Your task to perform on an android device: allow notifications from all sites in the chrome app Image 0: 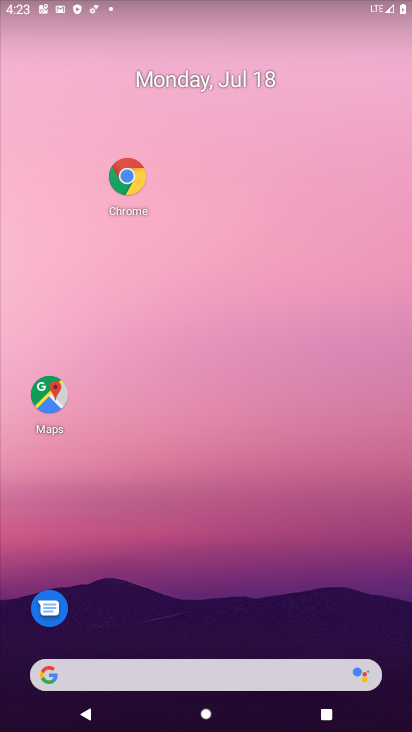
Step 0: drag from (259, 660) to (371, 232)
Your task to perform on an android device: allow notifications from all sites in the chrome app Image 1: 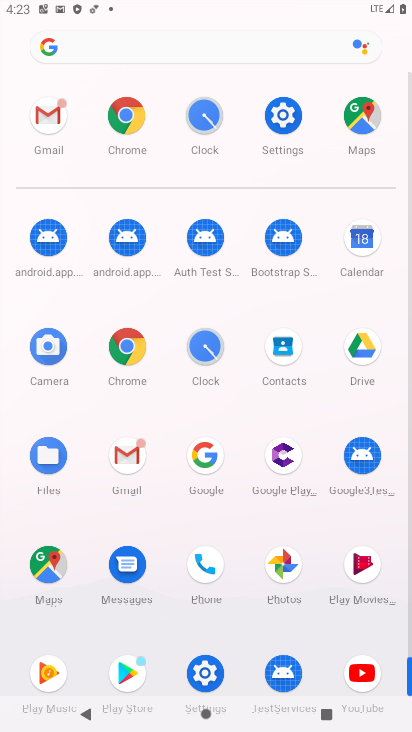
Step 1: click (126, 133)
Your task to perform on an android device: allow notifications from all sites in the chrome app Image 2: 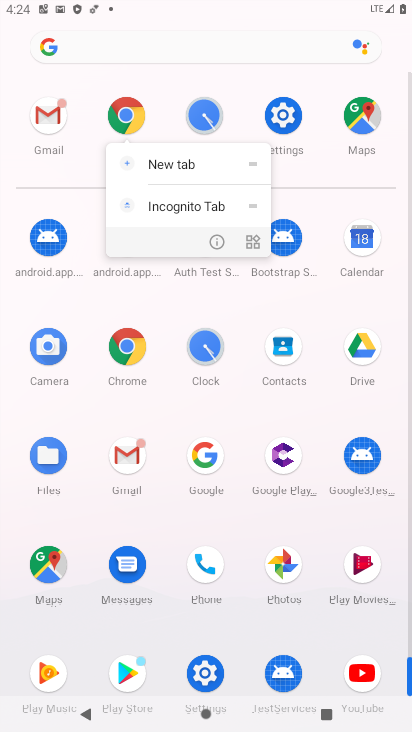
Step 2: click (122, 111)
Your task to perform on an android device: allow notifications from all sites in the chrome app Image 3: 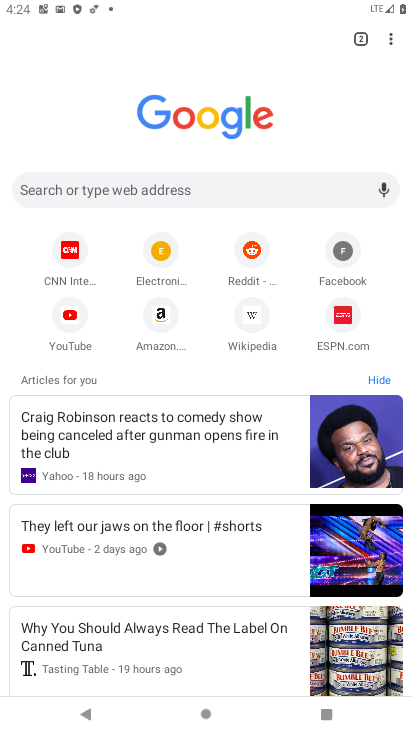
Step 3: click (386, 46)
Your task to perform on an android device: allow notifications from all sites in the chrome app Image 4: 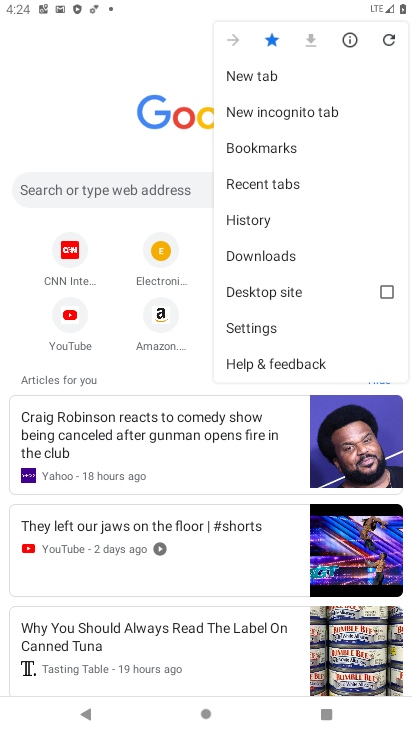
Step 4: click (252, 327)
Your task to perform on an android device: allow notifications from all sites in the chrome app Image 5: 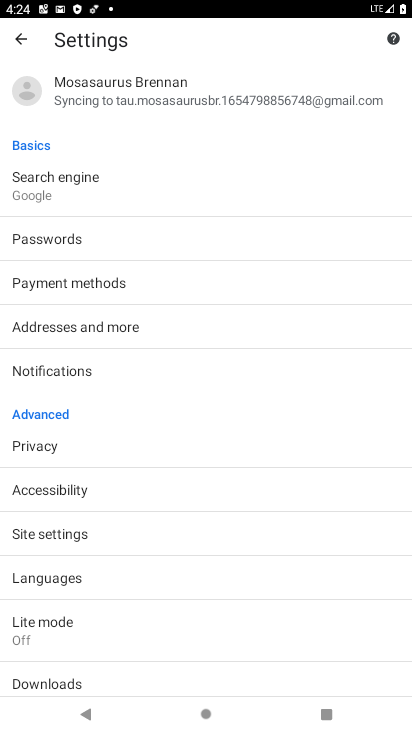
Step 5: click (56, 365)
Your task to perform on an android device: allow notifications from all sites in the chrome app Image 6: 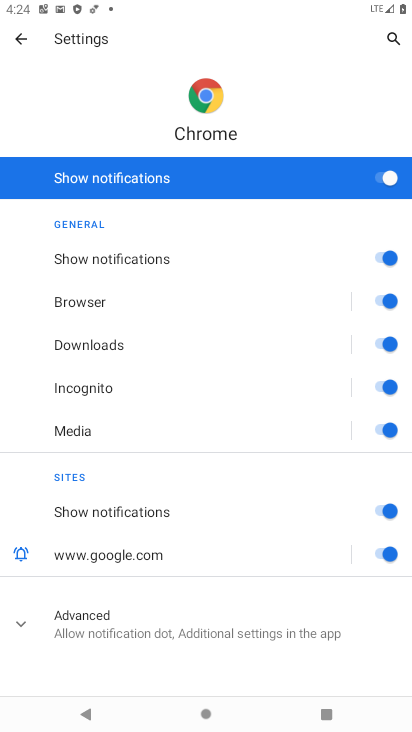
Step 6: click (137, 623)
Your task to perform on an android device: allow notifications from all sites in the chrome app Image 7: 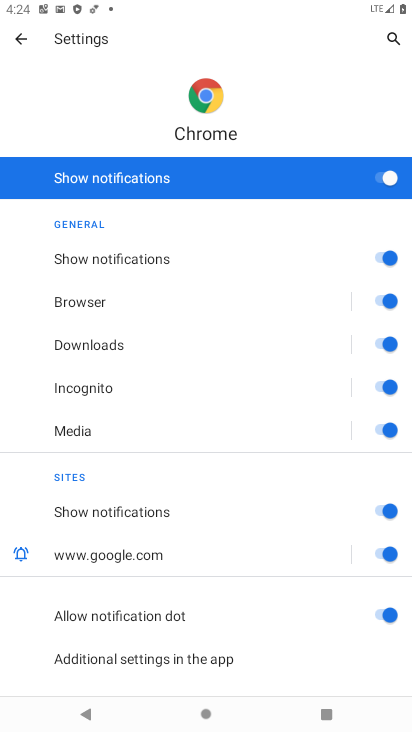
Step 7: task complete